Your task to perform on an android device: Go to Yahoo.com Image 0: 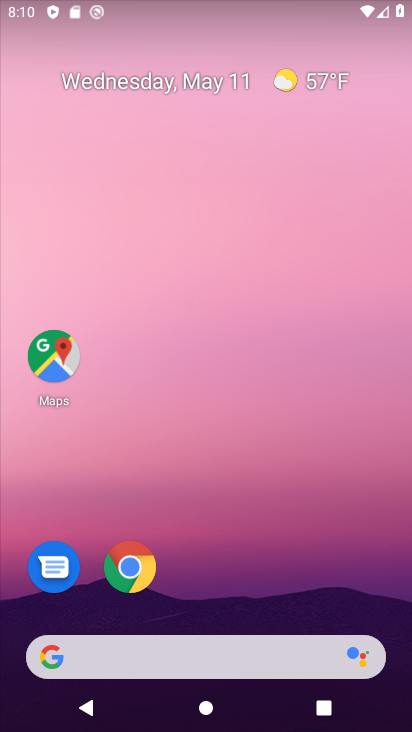
Step 0: click (148, 562)
Your task to perform on an android device: Go to Yahoo.com Image 1: 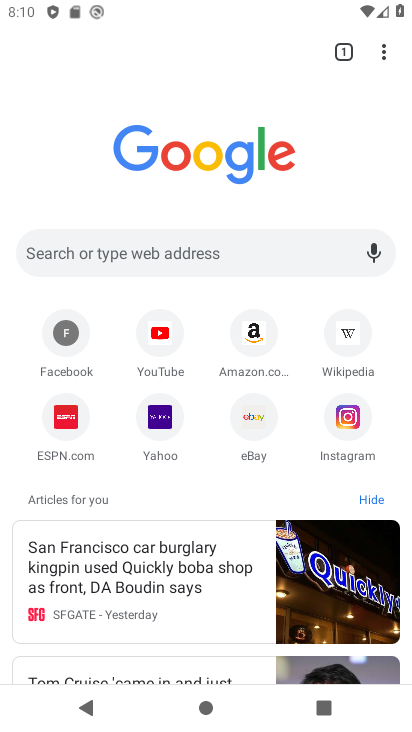
Step 1: click (157, 415)
Your task to perform on an android device: Go to Yahoo.com Image 2: 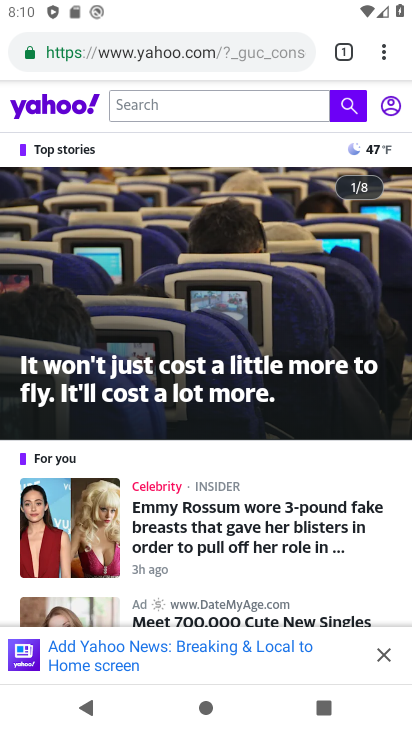
Step 2: task complete